Your task to perform on an android device: Is it going to rain today? Image 0: 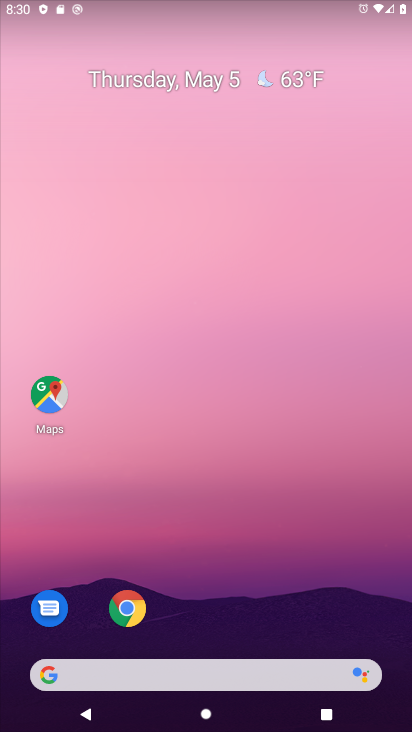
Step 0: click (128, 607)
Your task to perform on an android device: Is it going to rain today? Image 1: 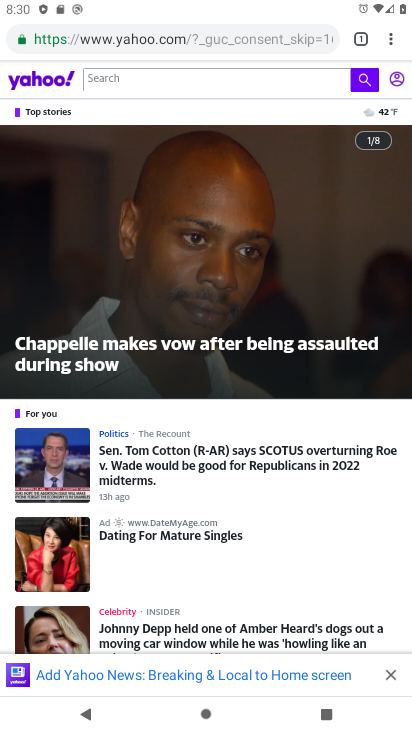
Step 1: click (367, 38)
Your task to perform on an android device: Is it going to rain today? Image 2: 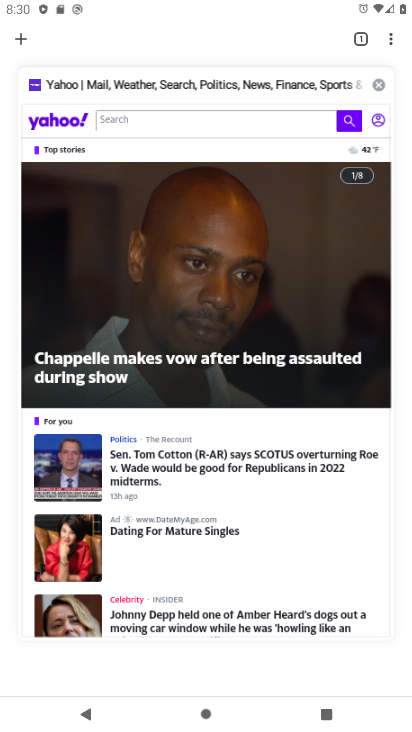
Step 2: click (21, 41)
Your task to perform on an android device: Is it going to rain today? Image 3: 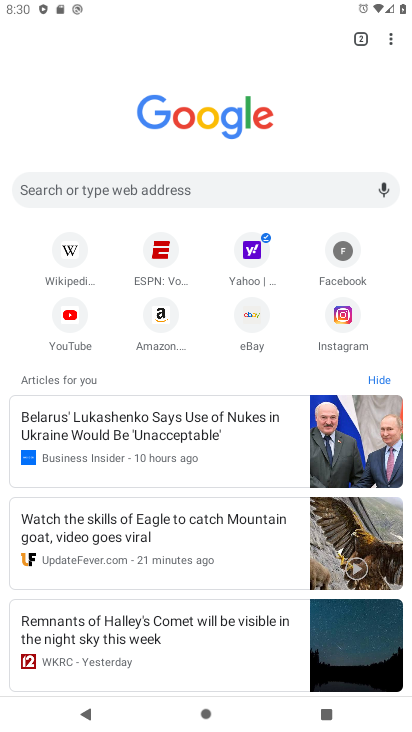
Step 3: click (121, 177)
Your task to perform on an android device: Is it going to rain today? Image 4: 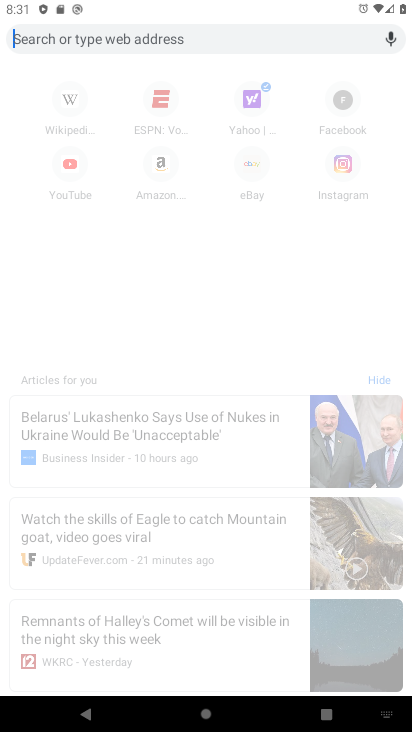
Step 4: type "is it going to rain today?"
Your task to perform on an android device: Is it going to rain today? Image 5: 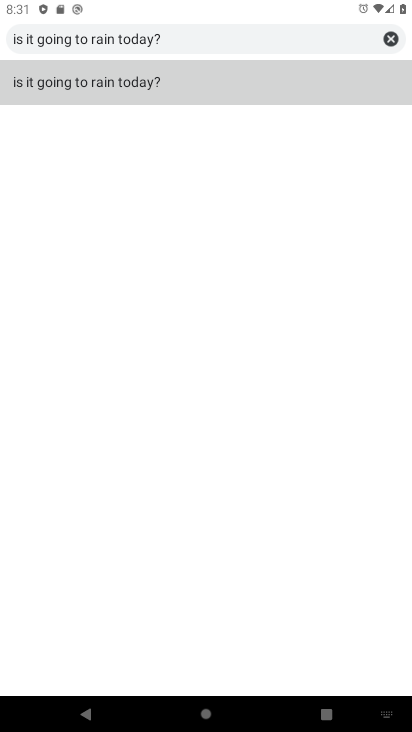
Step 5: click (131, 82)
Your task to perform on an android device: Is it going to rain today? Image 6: 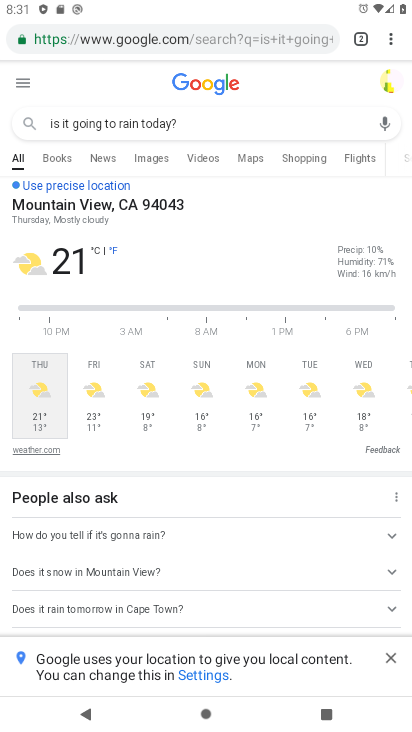
Step 6: task complete